Your task to perform on an android device: toggle wifi Image 0: 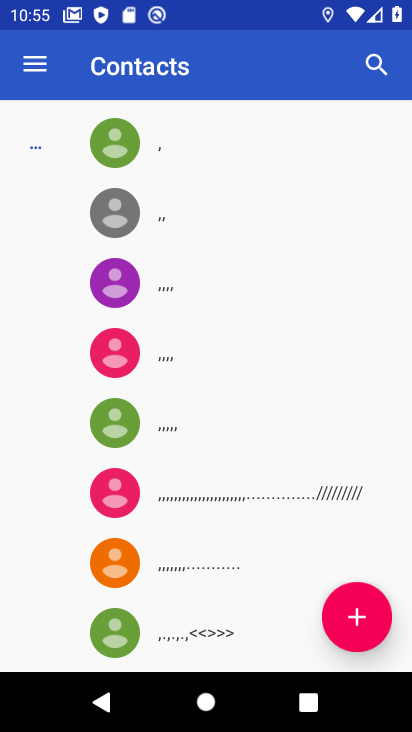
Step 0: press home button
Your task to perform on an android device: toggle wifi Image 1: 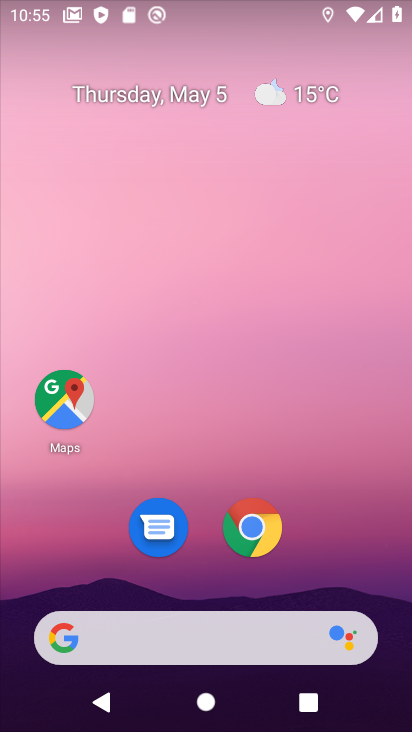
Step 1: drag from (221, 590) to (196, 13)
Your task to perform on an android device: toggle wifi Image 2: 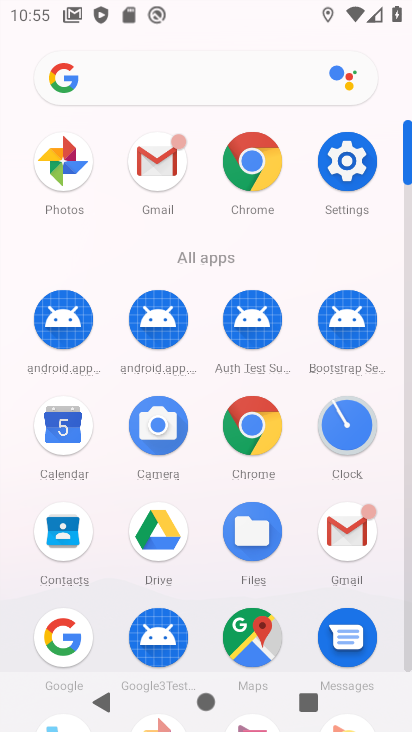
Step 2: click (354, 187)
Your task to perform on an android device: toggle wifi Image 3: 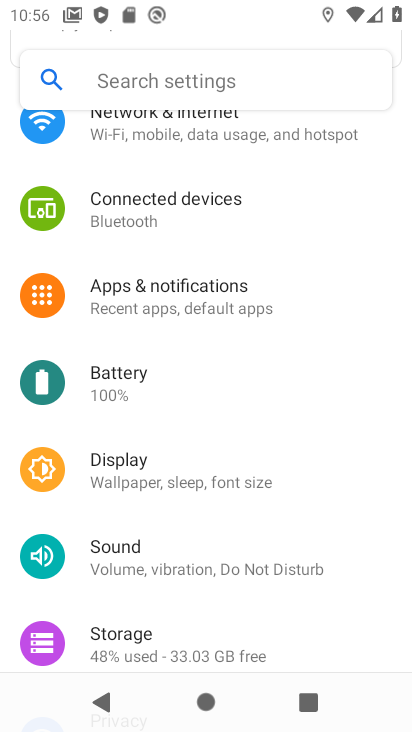
Step 3: drag from (251, 247) to (227, 651)
Your task to perform on an android device: toggle wifi Image 4: 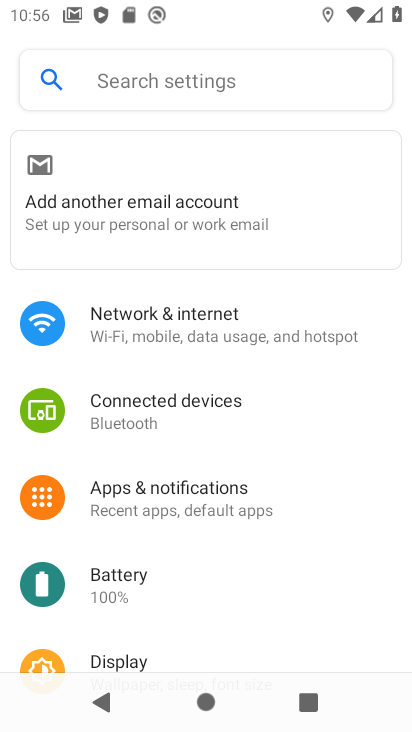
Step 4: click (200, 343)
Your task to perform on an android device: toggle wifi Image 5: 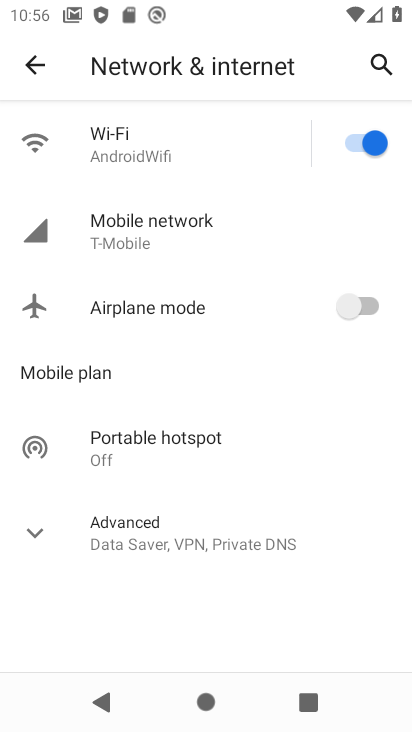
Step 5: click (342, 137)
Your task to perform on an android device: toggle wifi Image 6: 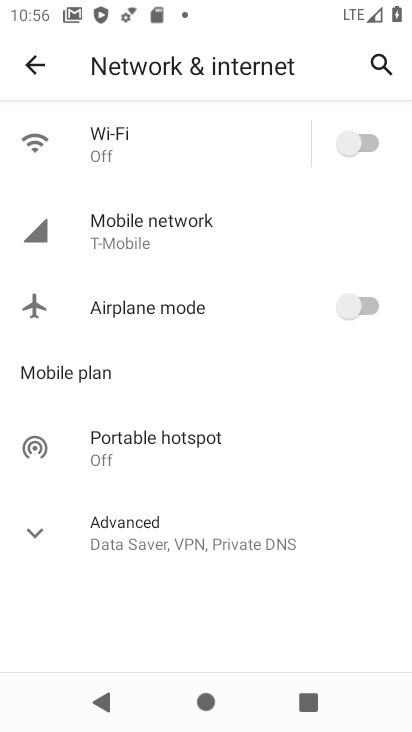
Step 6: task complete